Your task to perform on an android device: turn off priority inbox in the gmail app Image 0: 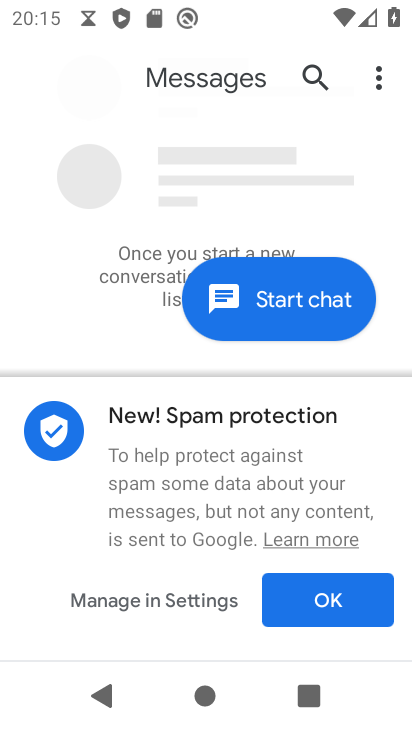
Step 0: press home button
Your task to perform on an android device: turn off priority inbox in the gmail app Image 1: 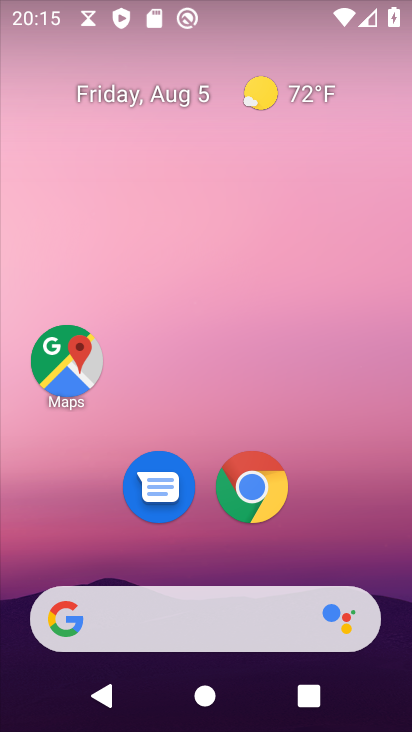
Step 1: drag from (182, 628) to (339, 106)
Your task to perform on an android device: turn off priority inbox in the gmail app Image 2: 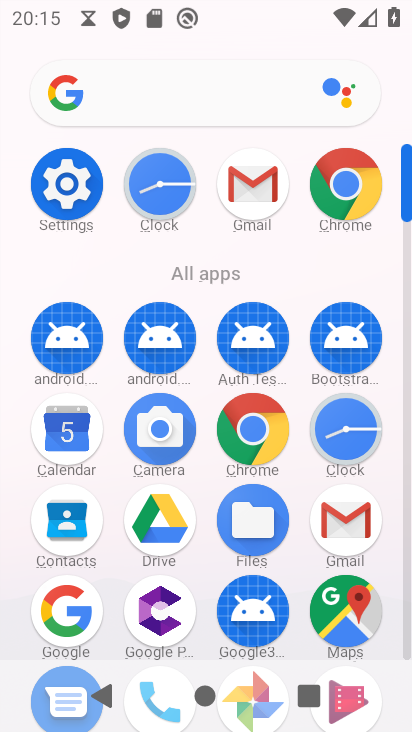
Step 2: click (262, 185)
Your task to perform on an android device: turn off priority inbox in the gmail app Image 3: 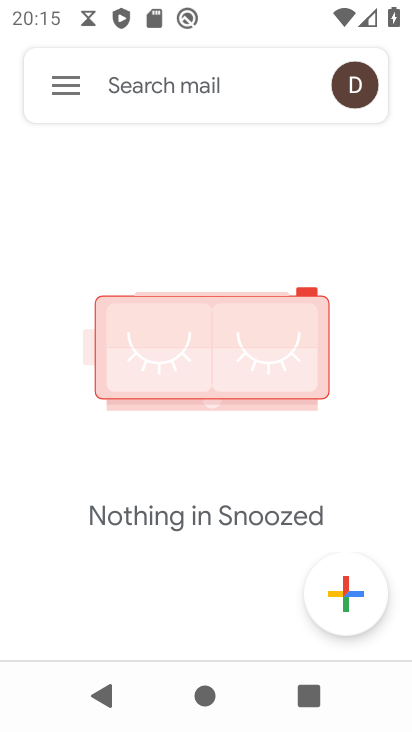
Step 3: click (69, 83)
Your task to perform on an android device: turn off priority inbox in the gmail app Image 4: 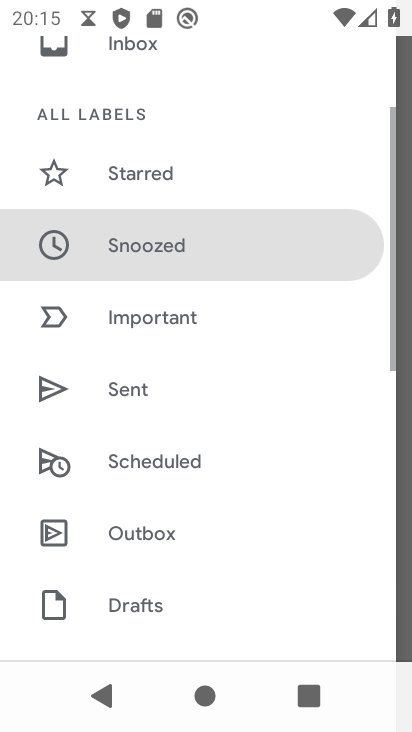
Step 4: drag from (207, 569) to (340, 29)
Your task to perform on an android device: turn off priority inbox in the gmail app Image 5: 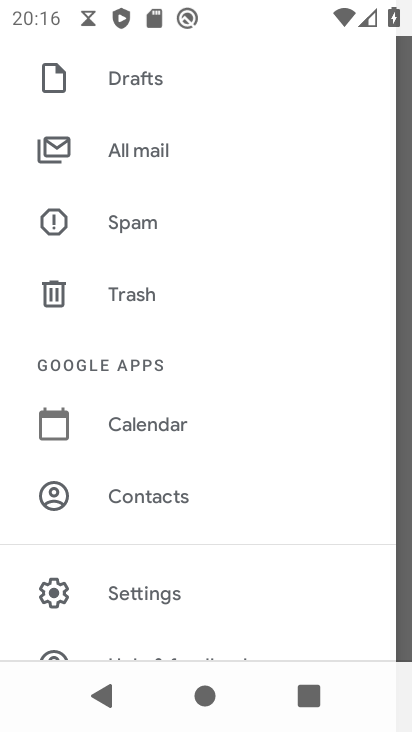
Step 5: click (157, 597)
Your task to perform on an android device: turn off priority inbox in the gmail app Image 6: 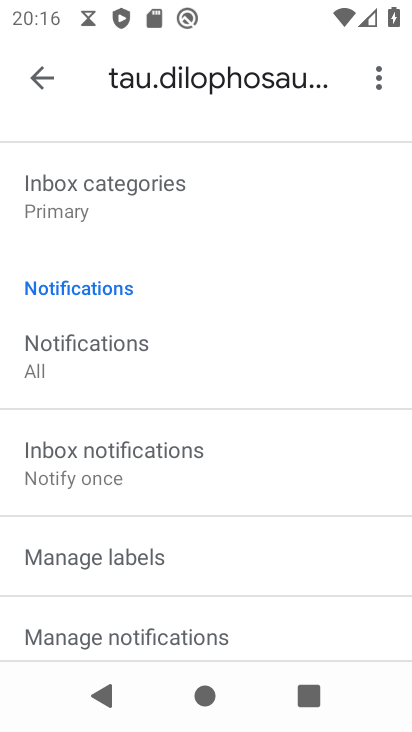
Step 6: drag from (307, 246) to (271, 641)
Your task to perform on an android device: turn off priority inbox in the gmail app Image 7: 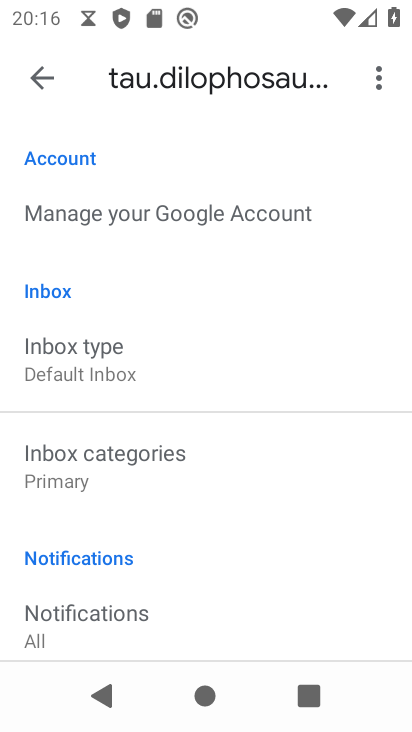
Step 7: click (106, 375)
Your task to perform on an android device: turn off priority inbox in the gmail app Image 8: 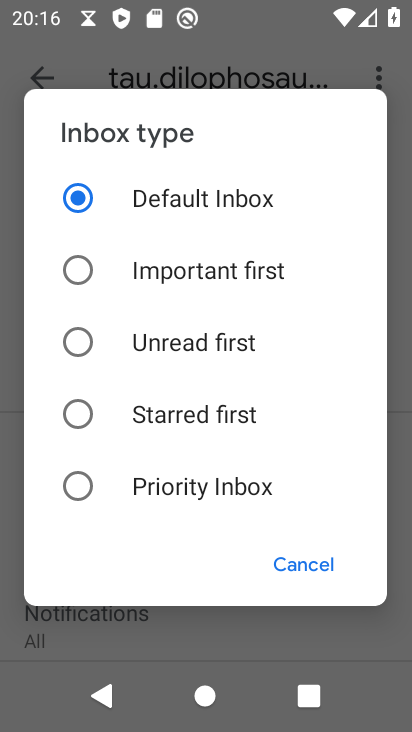
Step 8: task complete